Your task to perform on an android device: Search for top rated sushi restaurant Image 0: 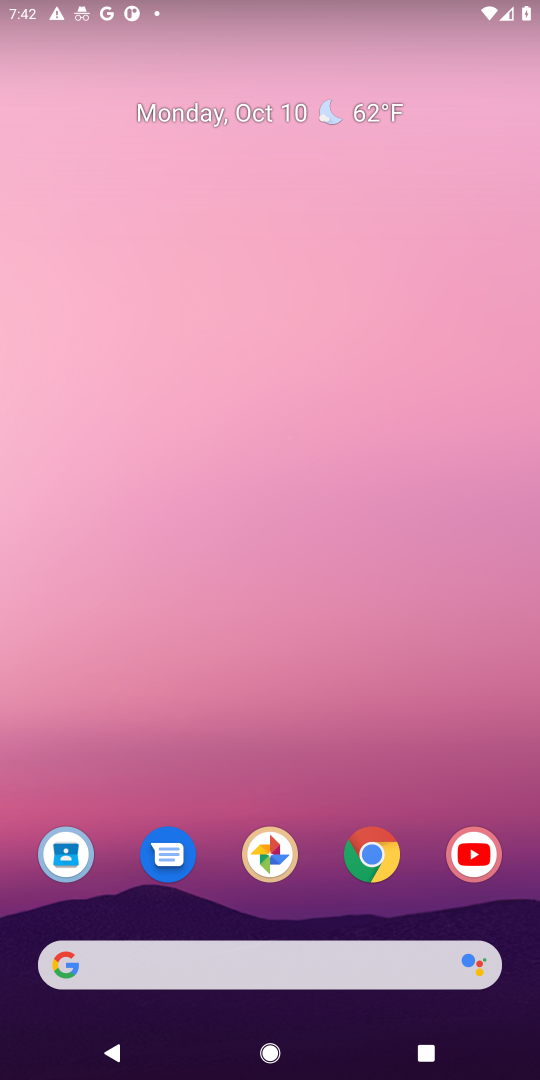
Step 0: click (371, 854)
Your task to perform on an android device: Search for top rated sushi restaurant Image 1: 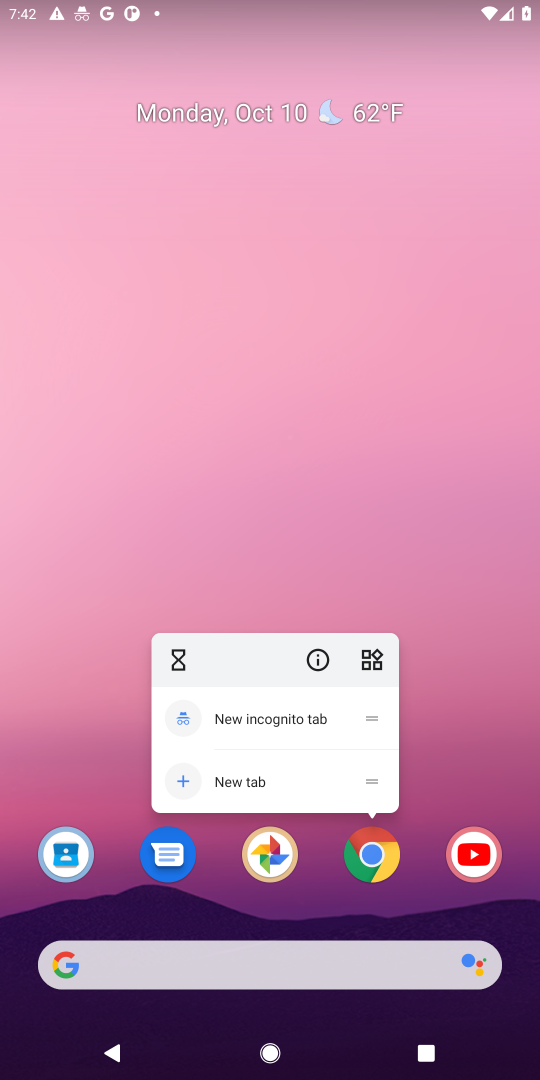
Step 1: click (367, 855)
Your task to perform on an android device: Search for top rated sushi restaurant Image 2: 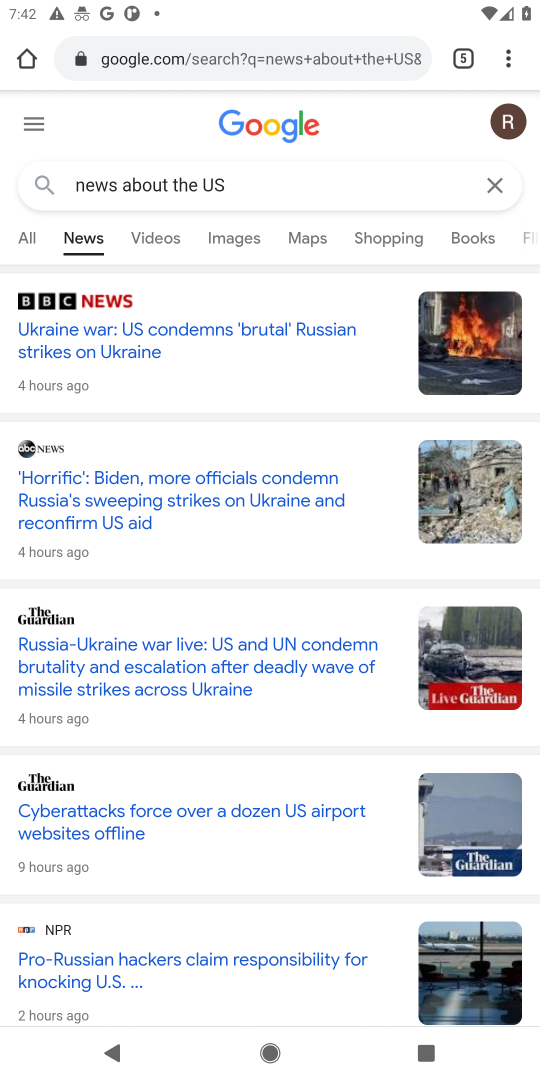
Step 2: click (371, 54)
Your task to perform on an android device: Search for top rated sushi restaurant Image 3: 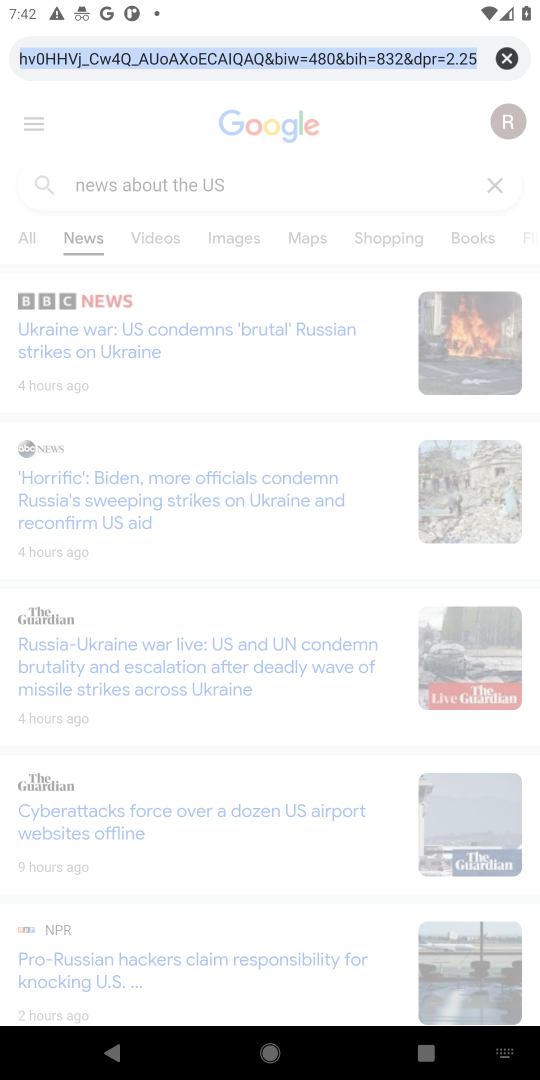
Step 3: click (508, 57)
Your task to perform on an android device: Search for top rated sushi restaurant Image 4: 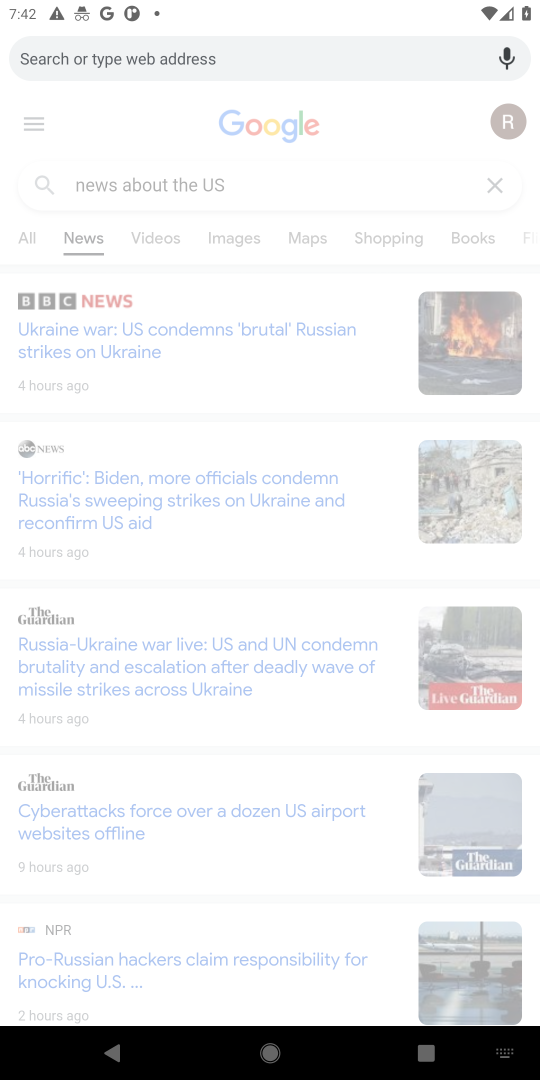
Step 4: type "top rated sushi restaurant"
Your task to perform on an android device: Search for top rated sushi restaurant Image 5: 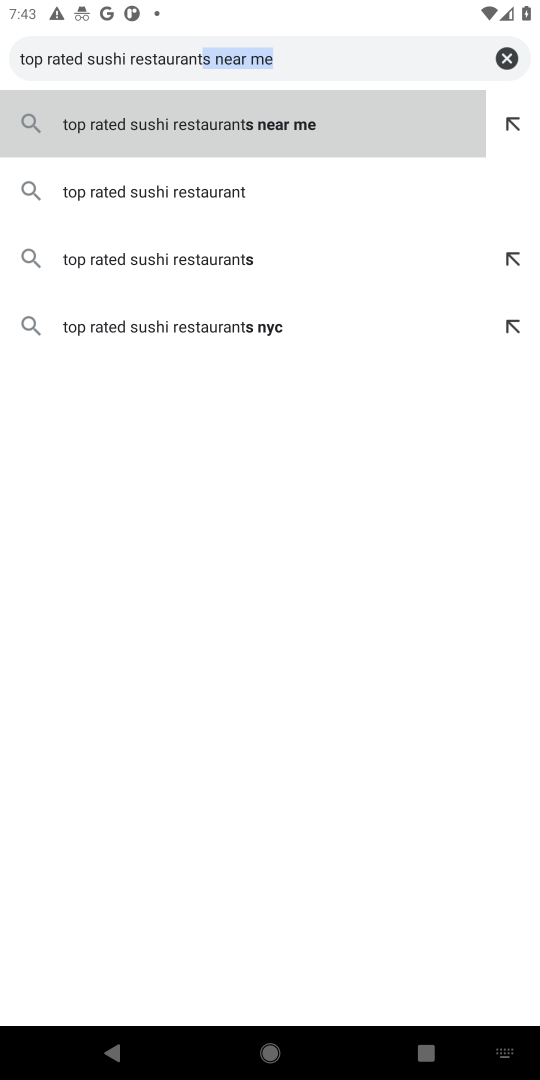
Step 5: click (248, 125)
Your task to perform on an android device: Search for top rated sushi restaurant Image 6: 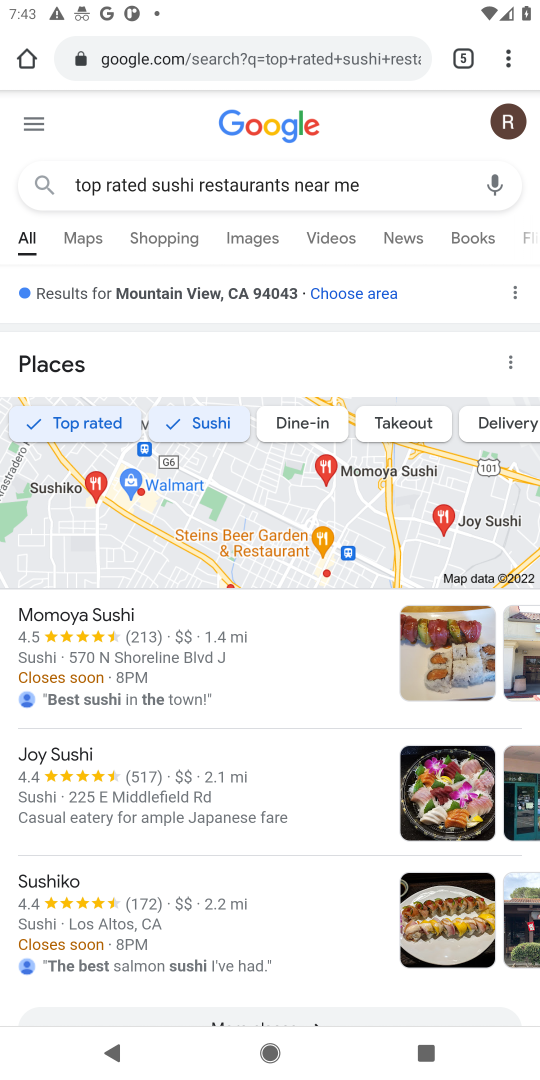
Step 6: drag from (218, 814) to (394, 322)
Your task to perform on an android device: Search for top rated sushi restaurant Image 7: 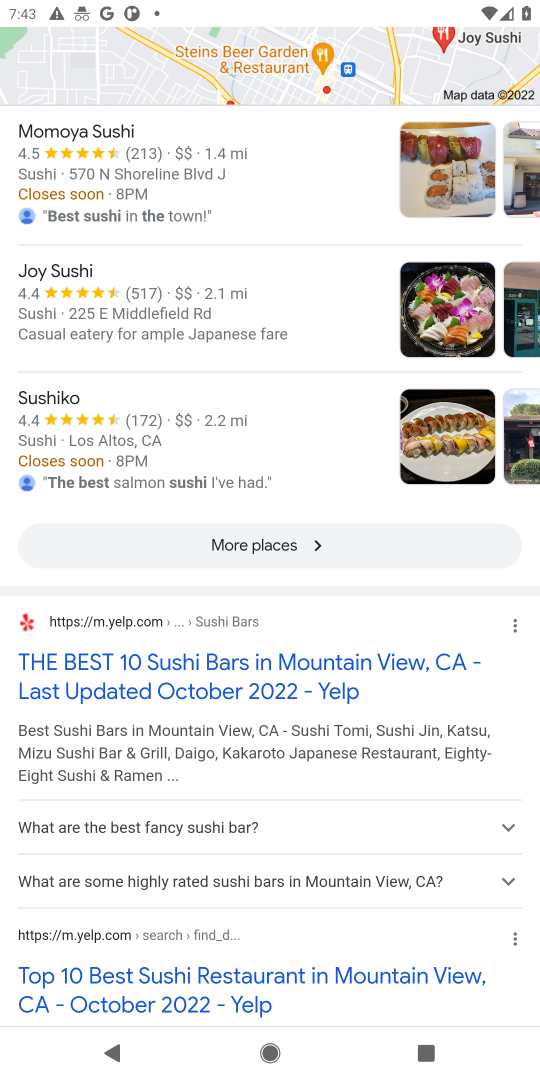
Step 7: click (312, 534)
Your task to perform on an android device: Search for top rated sushi restaurant Image 8: 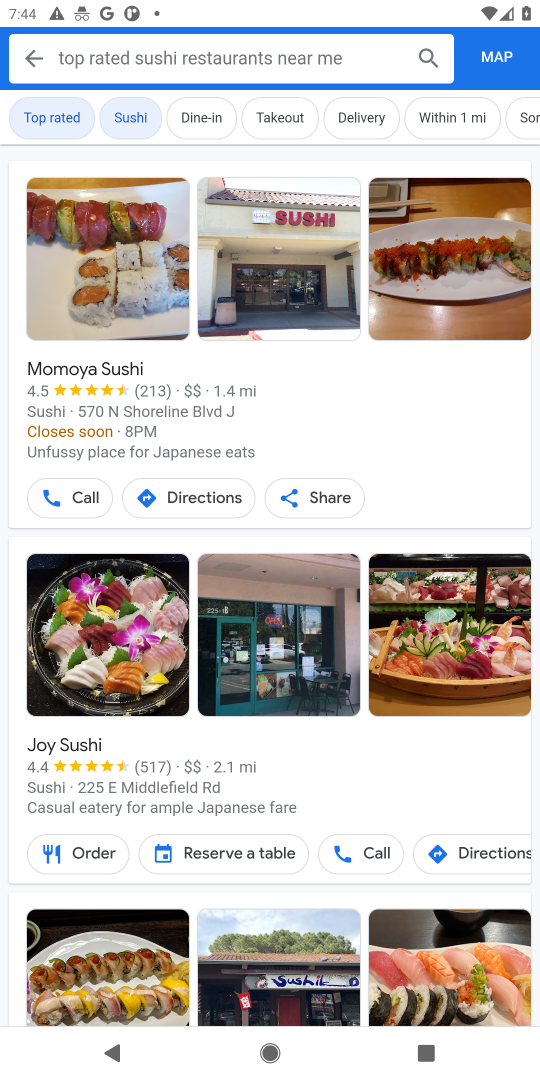
Step 8: task complete